Your task to perform on an android device: Open the calendar app, open the side menu, and click the "Day" option Image 0: 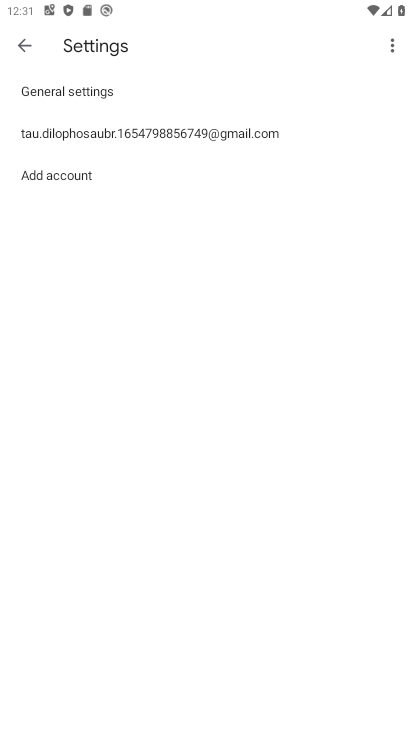
Step 0: press home button
Your task to perform on an android device: Open the calendar app, open the side menu, and click the "Day" option Image 1: 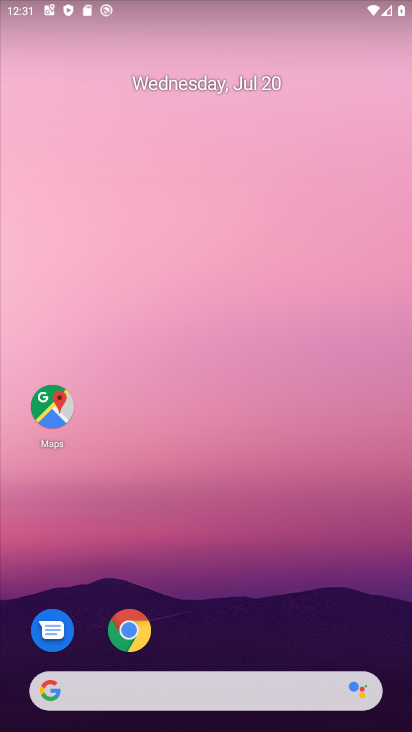
Step 1: drag from (268, 595) to (258, 168)
Your task to perform on an android device: Open the calendar app, open the side menu, and click the "Day" option Image 2: 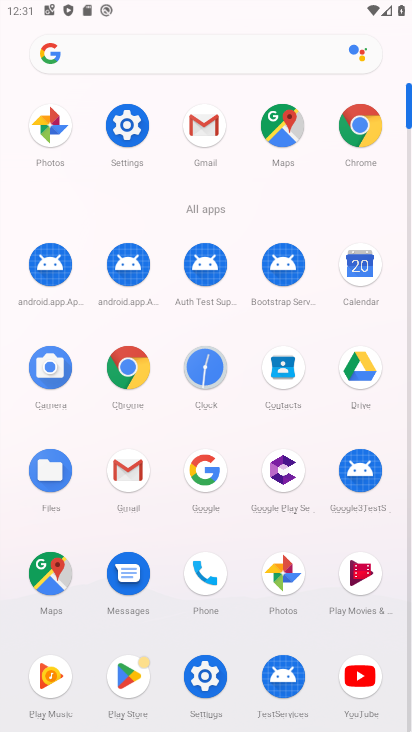
Step 2: click (354, 267)
Your task to perform on an android device: Open the calendar app, open the side menu, and click the "Day" option Image 3: 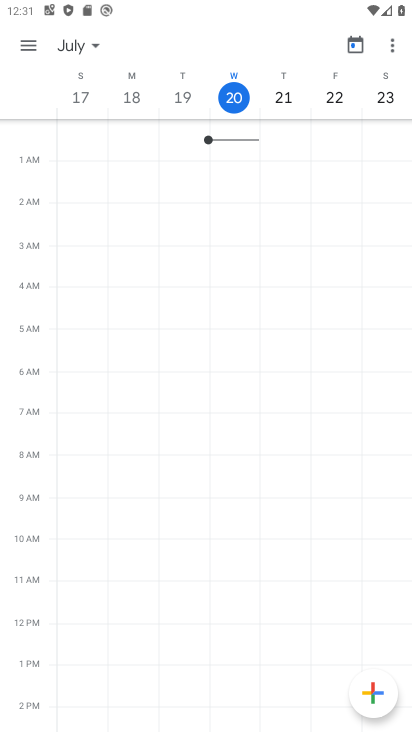
Step 3: click (34, 44)
Your task to perform on an android device: Open the calendar app, open the side menu, and click the "Day" option Image 4: 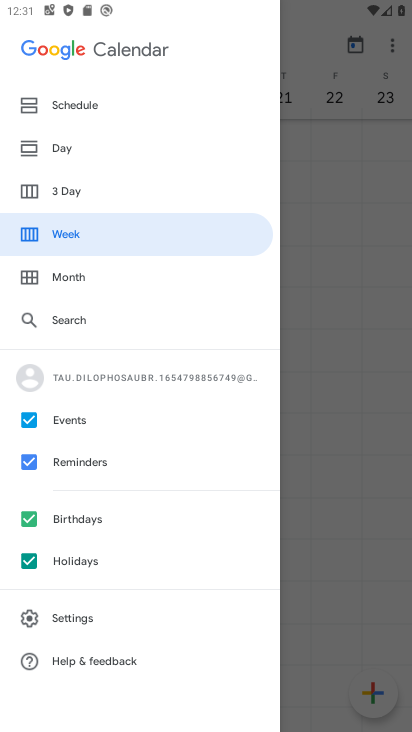
Step 4: click (80, 147)
Your task to perform on an android device: Open the calendar app, open the side menu, and click the "Day" option Image 5: 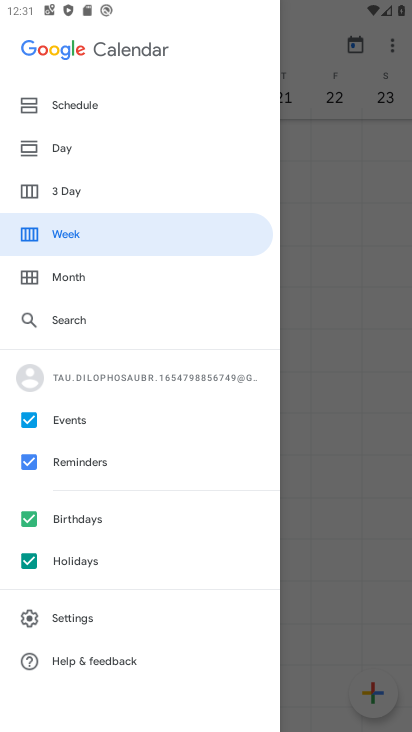
Step 5: click (60, 148)
Your task to perform on an android device: Open the calendar app, open the side menu, and click the "Day" option Image 6: 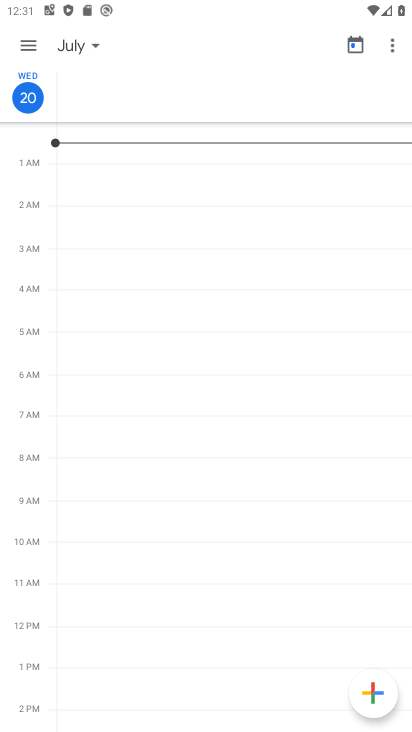
Step 6: task complete